Your task to perform on an android device: open sync settings in chrome Image 0: 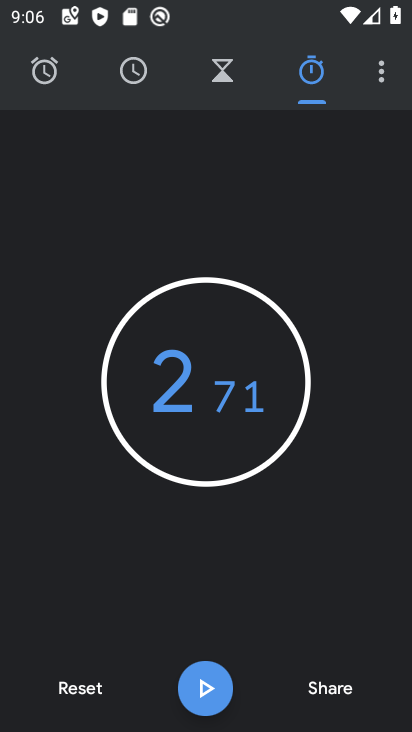
Step 0: press home button
Your task to perform on an android device: open sync settings in chrome Image 1: 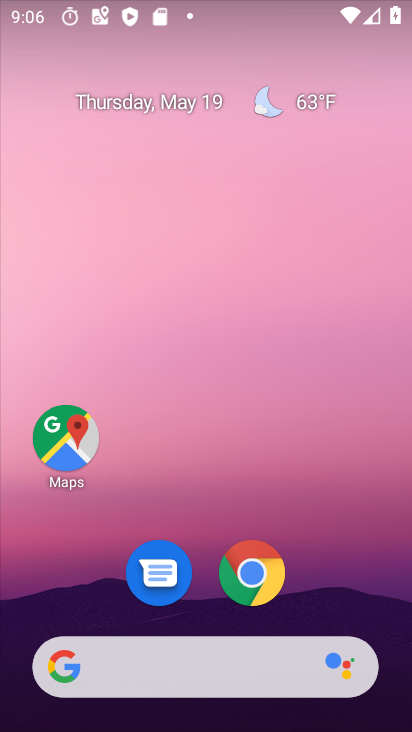
Step 1: click (258, 585)
Your task to perform on an android device: open sync settings in chrome Image 2: 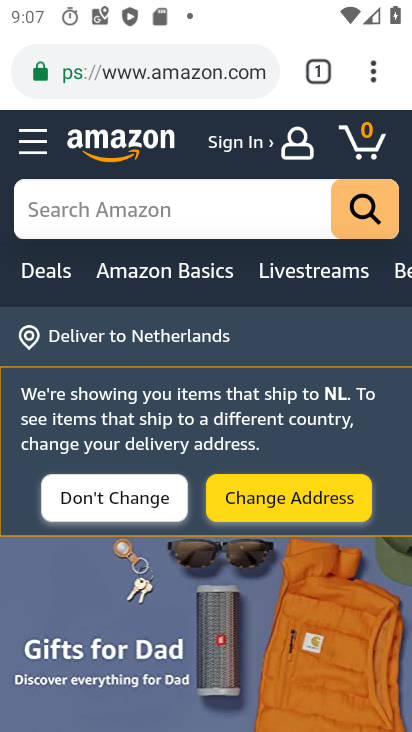
Step 2: click (376, 73)
Your task to perform on an android device: open sync settings in chrome Image 3: 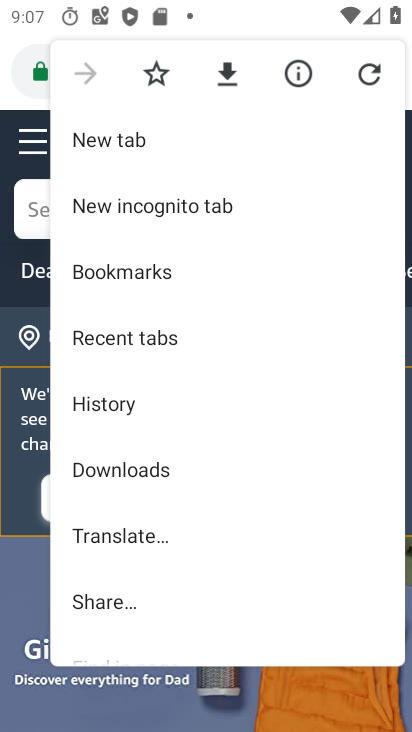
Step 3: drag from (230, 568) to (213, 275)
Your task to perform on an android device: open sync settings in chrome Image 4: 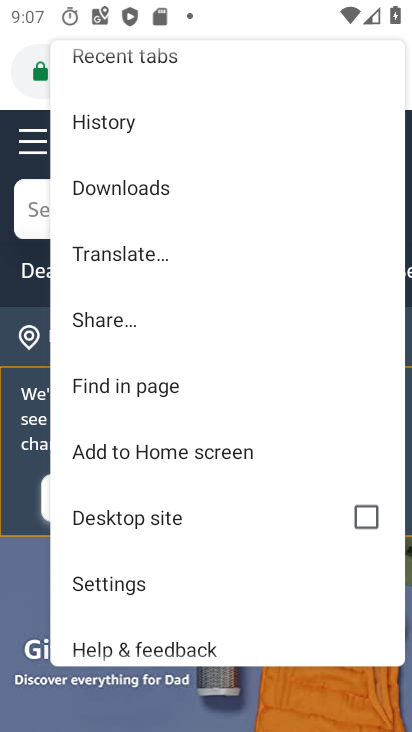
Step 4: click (130, 587)
Your task to perform on an android device: open sync settings in chrome Image 5: 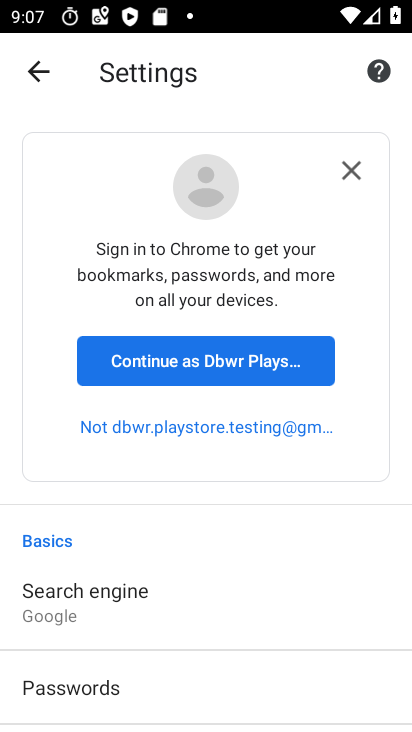
Step 5: click (191, 370)
Your task to perform on an android device: open sync settings in chrome Image 6: 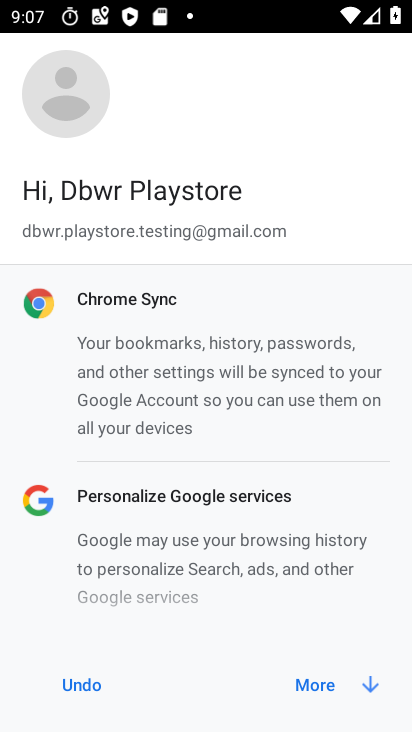
Step 6: click (308, 682)
Your task to perform on an android device: open sync settings in chrome Image 7: 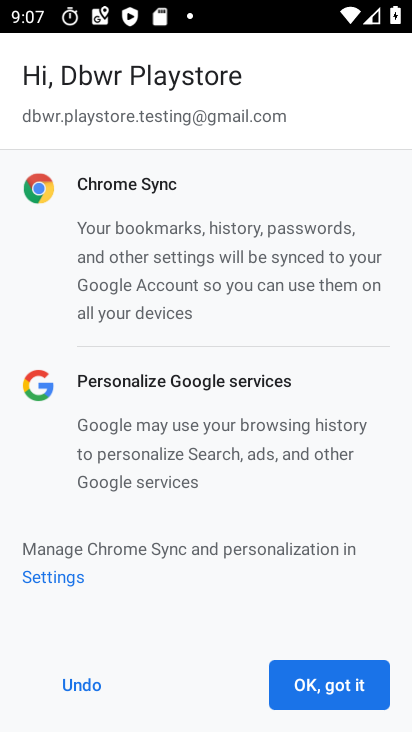
Step 7: click (308, 682)
Your task to perform on an android device: open sync settings in chrome Image 8: 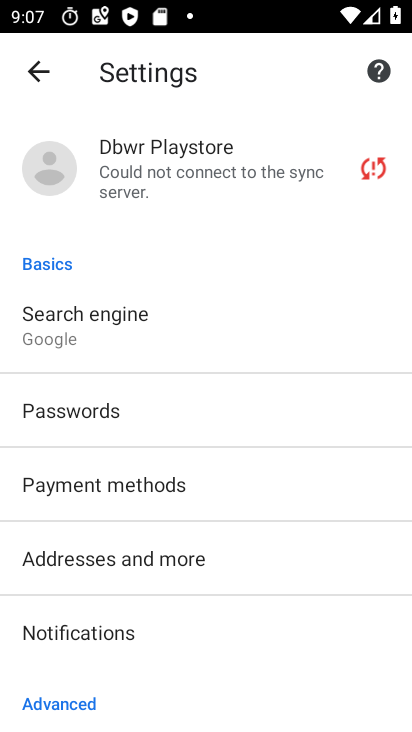
Step 8: click (203, 173)
Your task to perform on an android device: open sync settings in chrome Image 9: 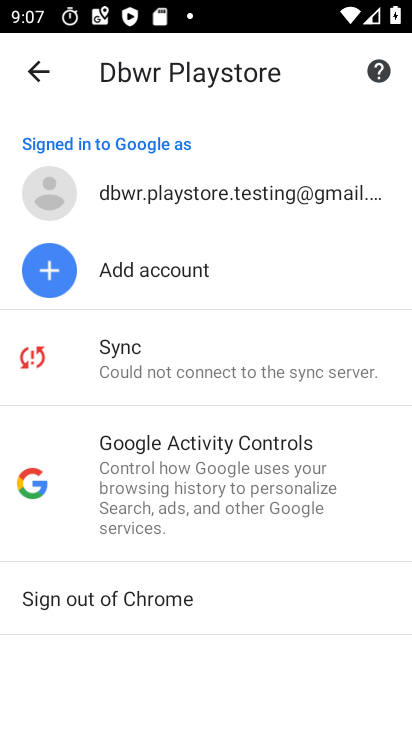
Step 9: click (118, 360)
Your task to perform on an android device: open sync settings in chrome Image 10: 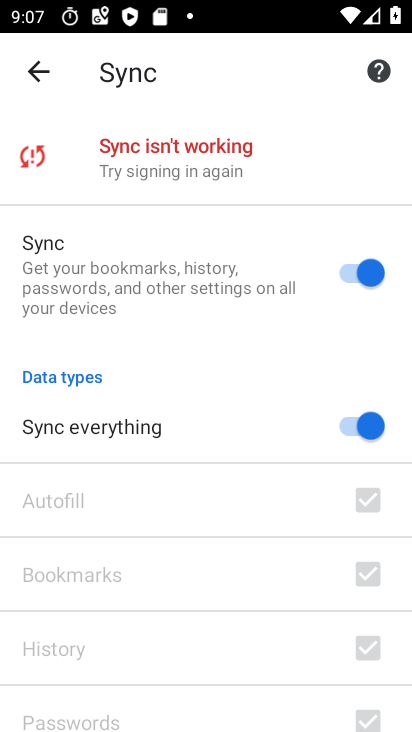
Step 10: task complete